Your task to perform on an android device: Open Google Maps and go to "Timeline" Image 0: 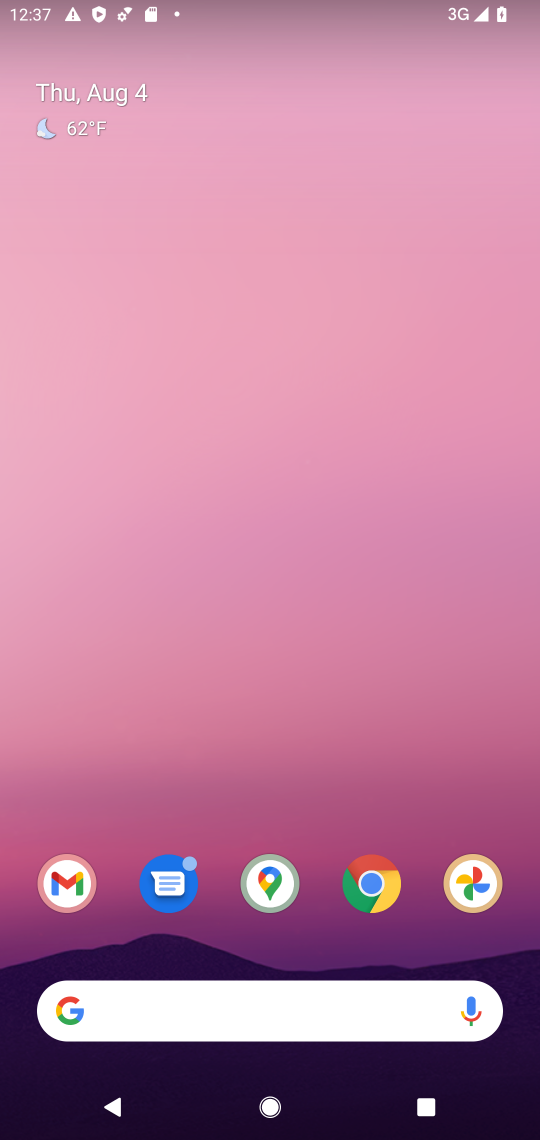
Step 0: drag from (204, 946) to (303, 564)
Your task to perform on an android device: Open Google Maps and go to "Timeline" Image 1: 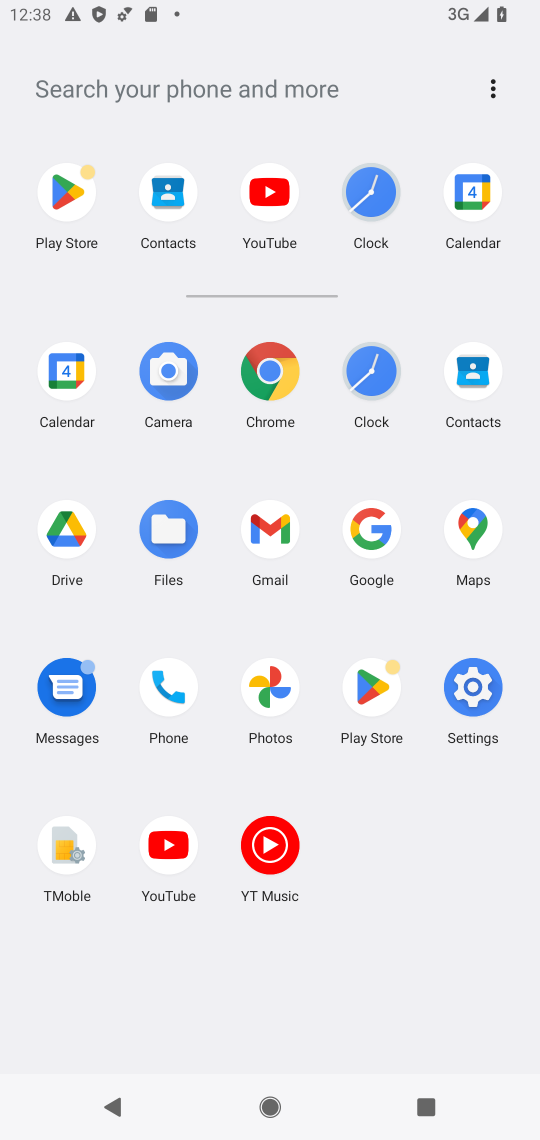
Step 1: click (474, 512)
Your task to perform on an android device: Open Google Maps and go to "Timeline" Image 2: 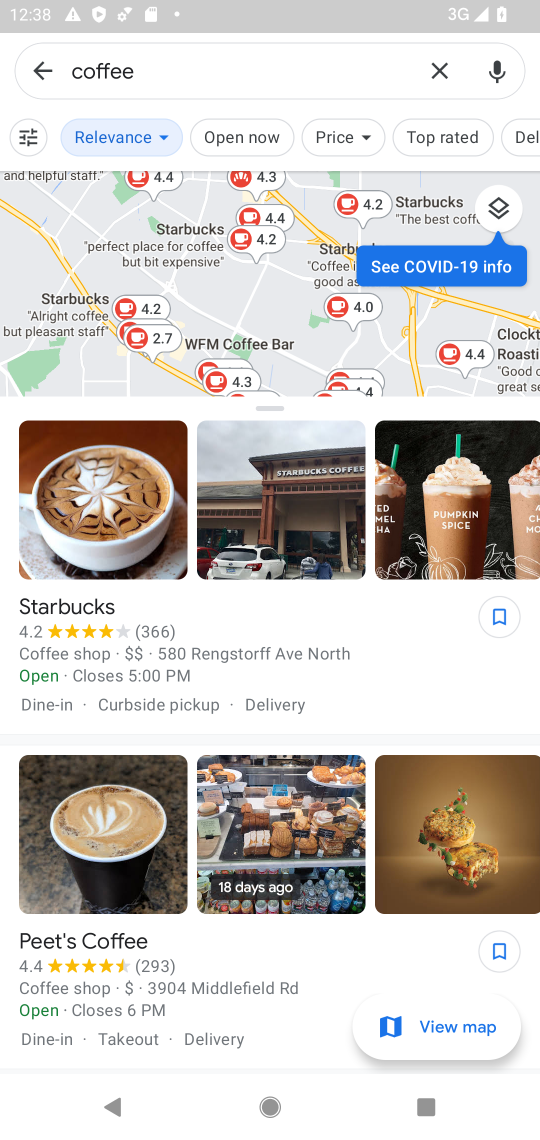
Step 2: drag from (261, 857) to (339, 532)
Your task to perform on an android device: Open Google Maps and go to "Timeline" Image 3: 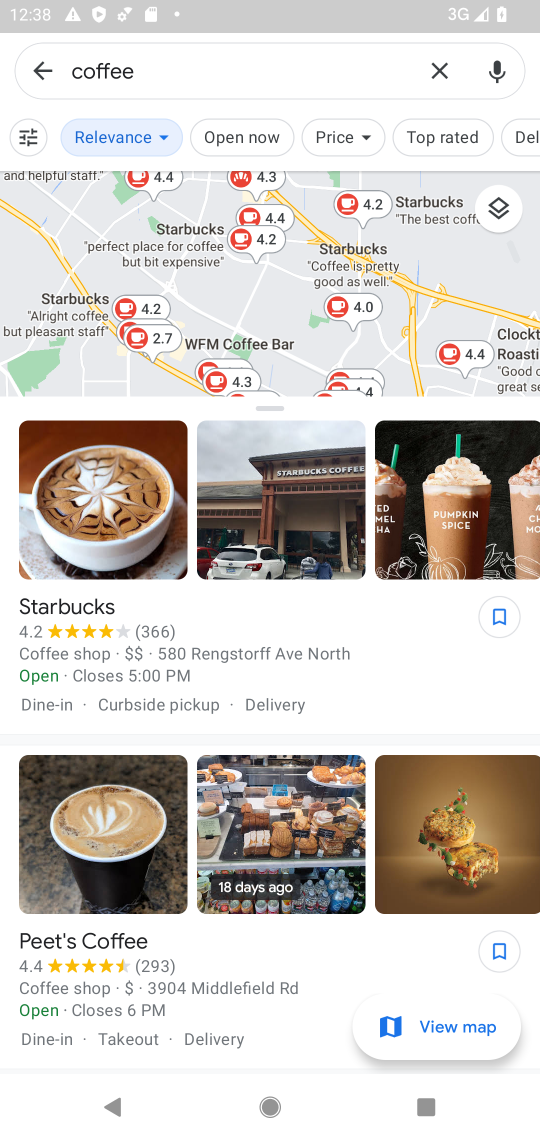
Step 3: click (46, 77)
Your task to perform on an android device: Open Google Maps and go to "Timeline" Image 4: 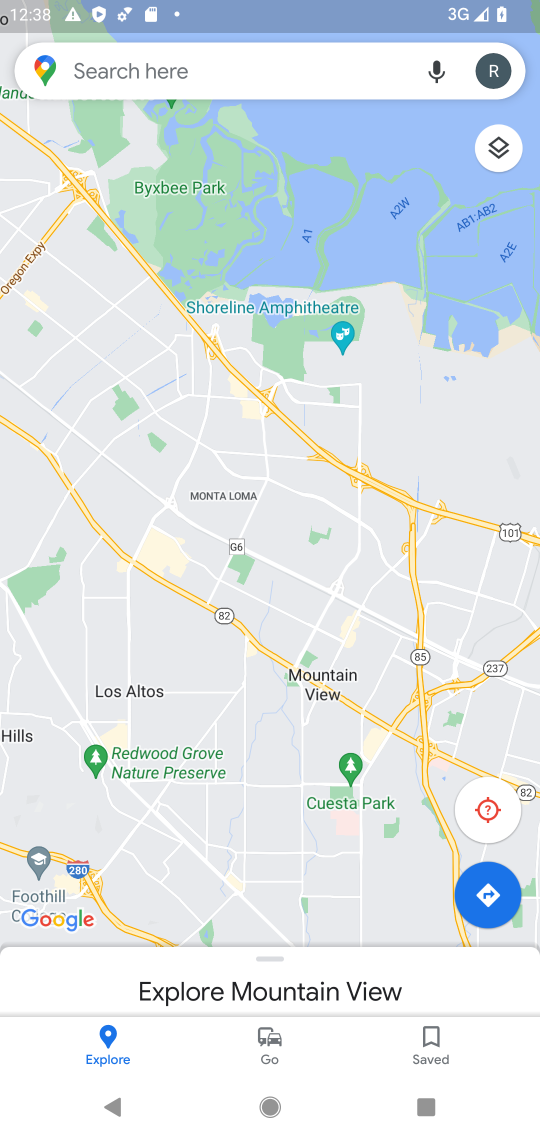
Step 4: click (434, 1045)
Your task to perform on an android device: Open Google Maps and go to "Timeline" Image 5: 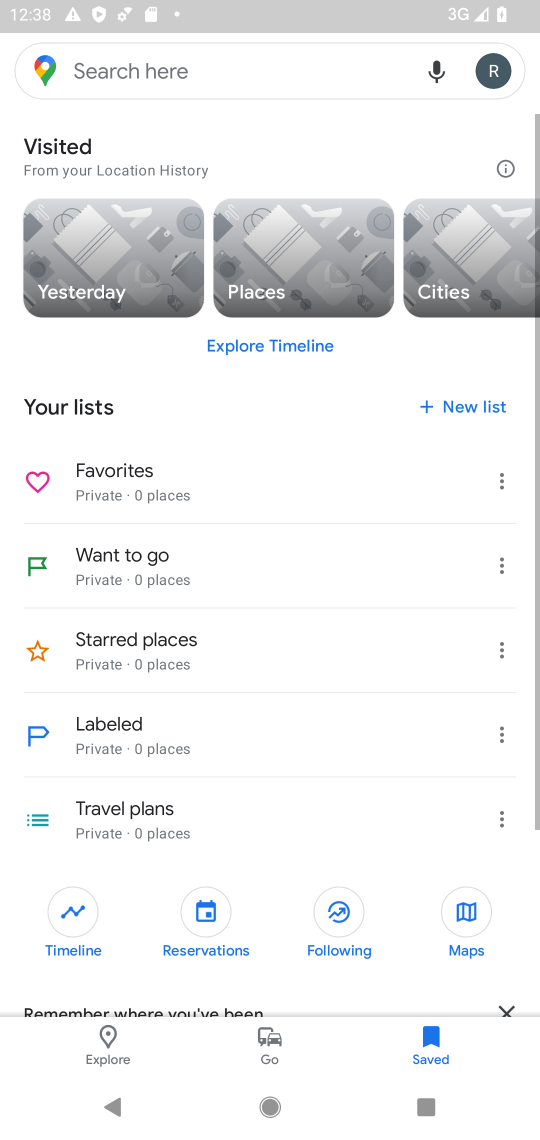
Step 5: drag from (305, 809) to (364, 281)
Your task to perform on an android device: Open Google Maps and go to "Timeline" Image 6: 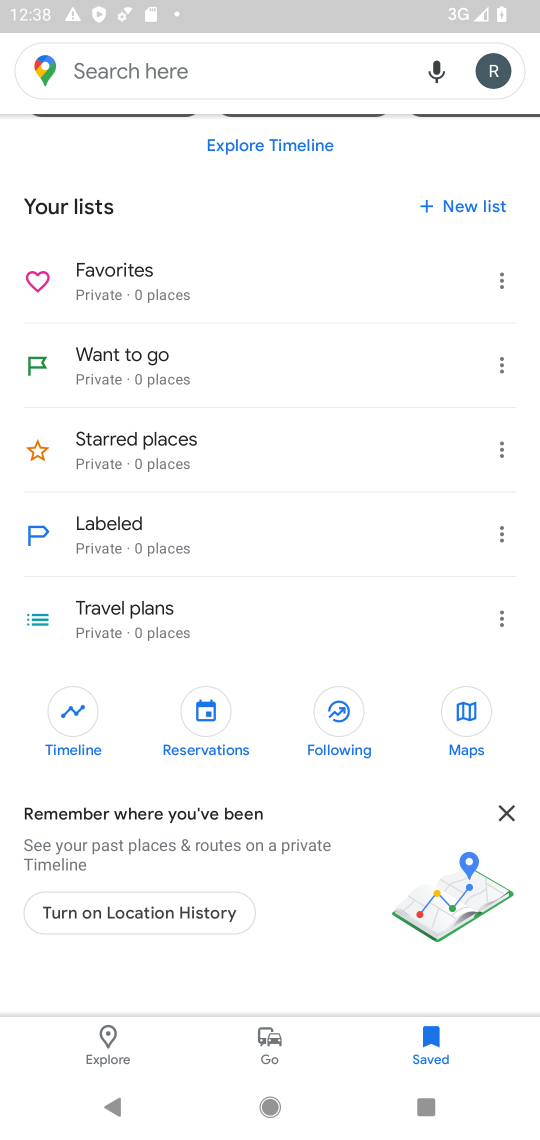
Step 6: click (76, 706)
Your task to perform on an android device: Open Google Maps and go to "Timeline" Image 7: 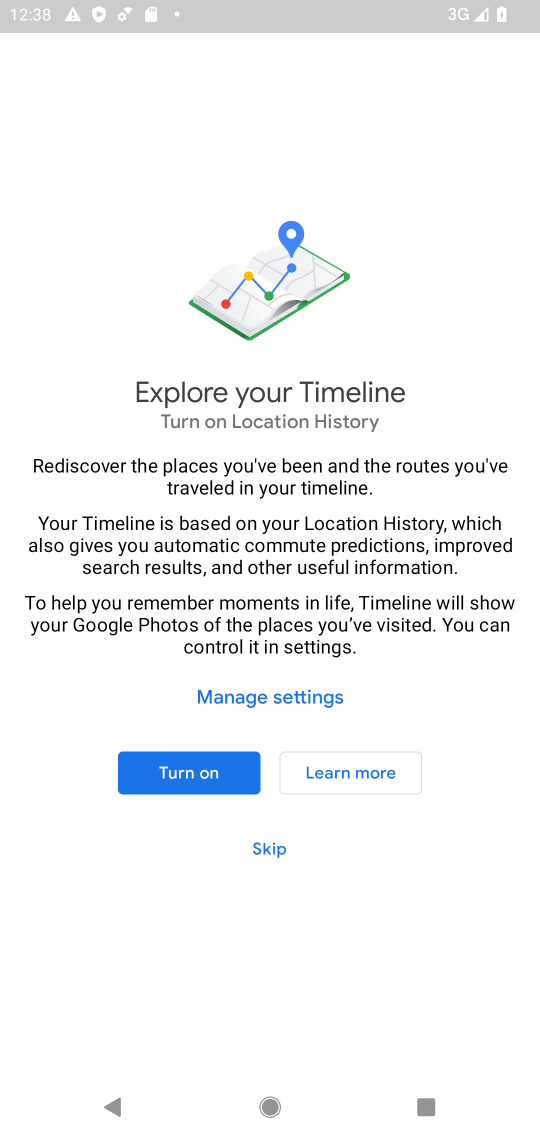
Step 7: click (206, 782)
Your task to perform on an android device: Open Google Maps and go to "Timeline" Image 8: 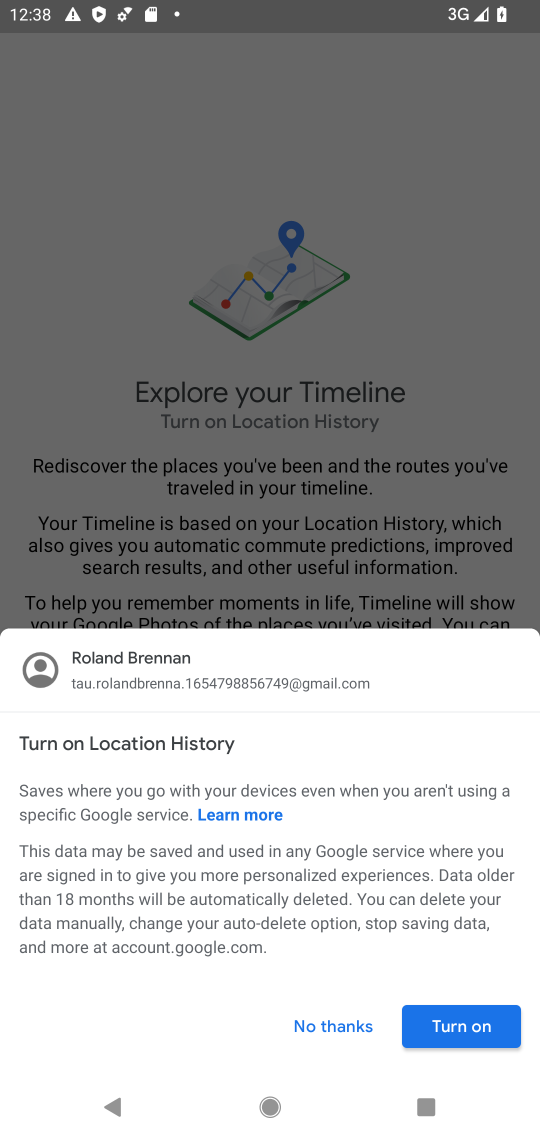
Step 8: drag from (256, 868) to (301, 602)
Your task to perform on an android device: Open Google Maps and go to "Timeline" Image 9: 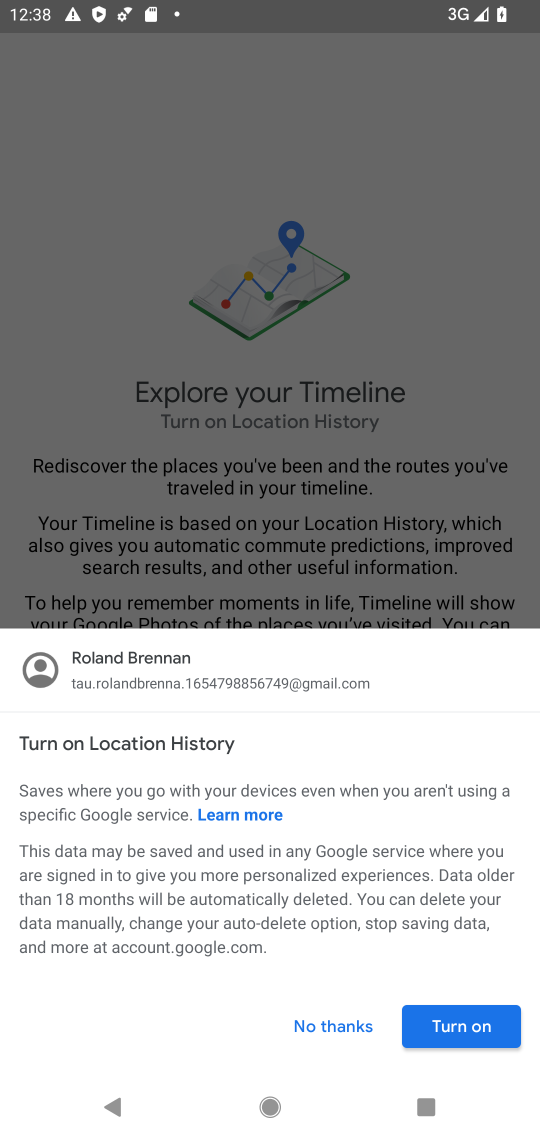
Step 9: click (485, 1009)
Your task to perform on an android device: Open Google Maps and go to "Timeline" Image 10: 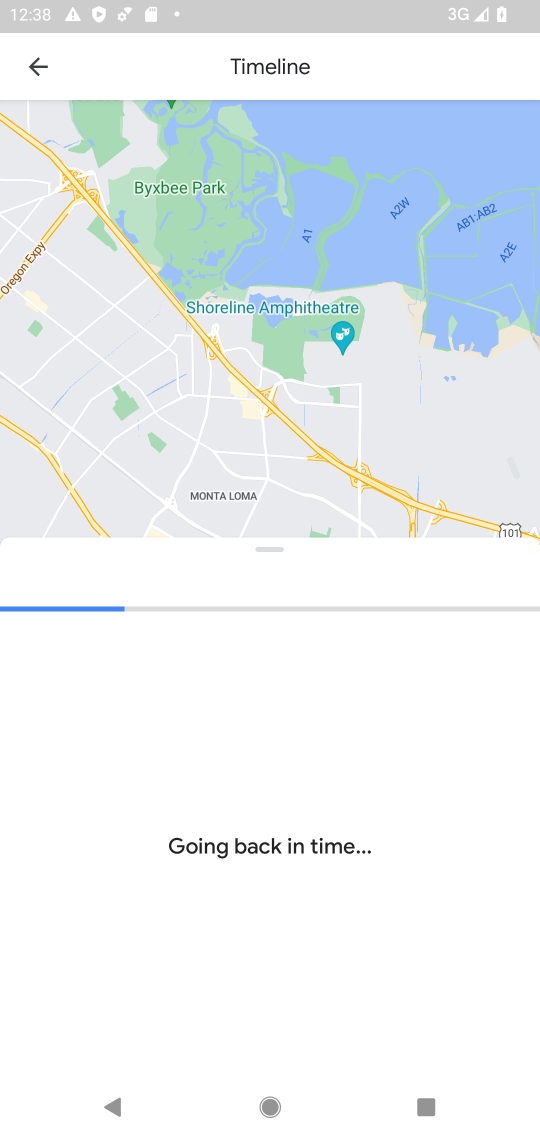
Step 10: task complete